Your task to perform on an android device: Go to accessibility settings Image 0: 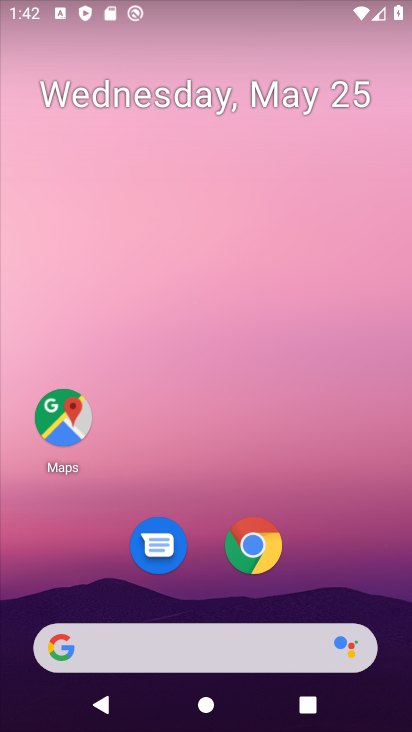
Step 0: drag from (396, 594) to (209, 99)
Your task to perform on an android device: Go to accessibility settings Image 1: 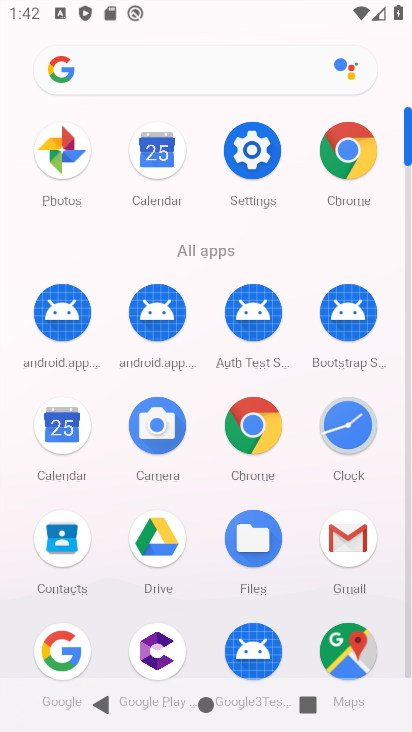
Step 1: click (240, 144)
Your task to perform on an android device: Go to accessibility settings Image 2: 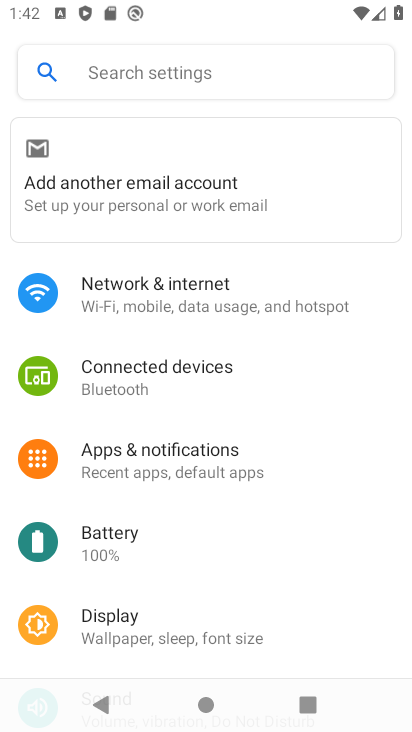
Step 2: drag from (265, 663) to (246, 72)
Your task to perform on an android device: Go to accessibility settings Image 3: 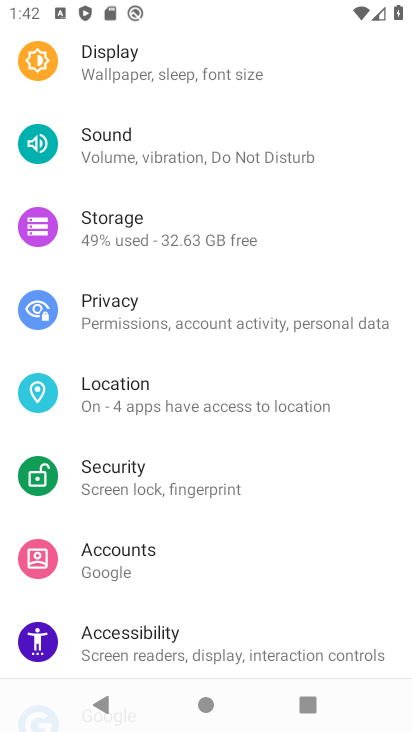
Step 3: click (250, 637)
Your task to perform on an android device: Go to accessibility settings Image 4: 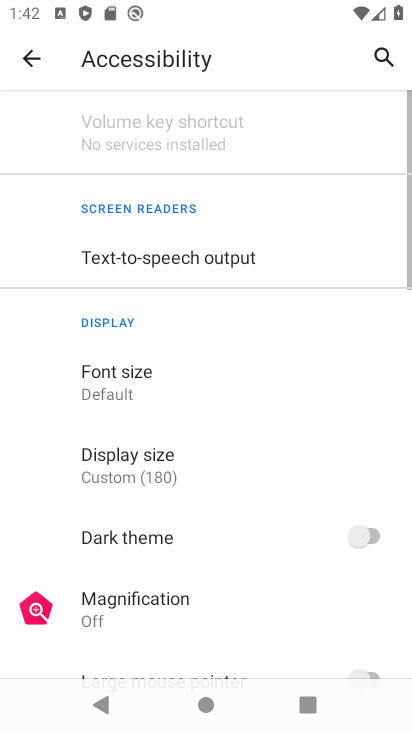
Step 4: task complete